Your task to perform on an android device: Open Chrome and go to the settings page Image 0: 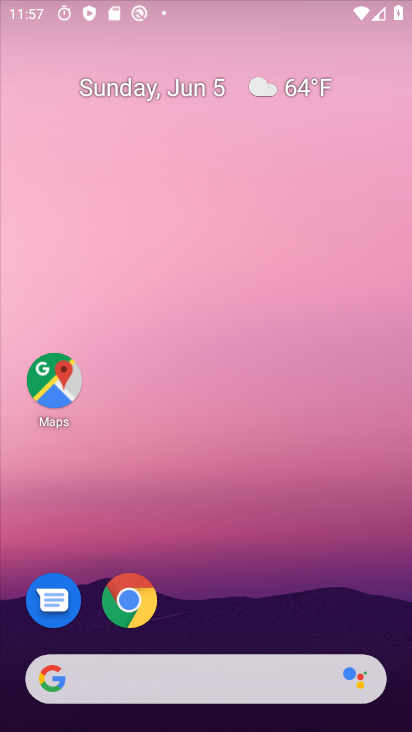
Step 0: drag from (292, 681) to (226, 227)
Your task to perform on an android device: Open Chrome and go to the settings page Image 1: 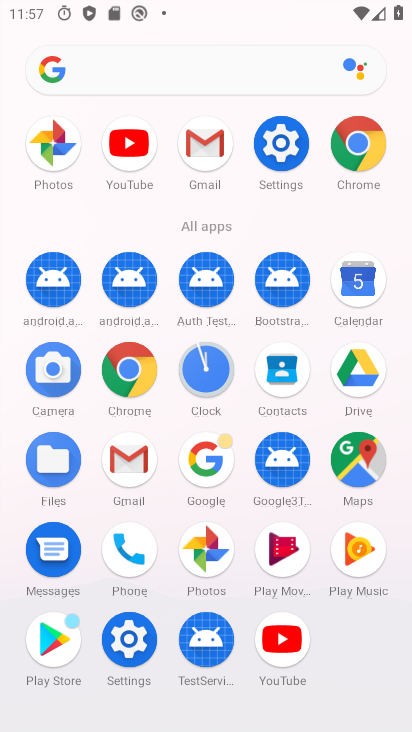
Step 1: click (276, 146)
Your task to perform on an android device: Open Chrome and go to the settings page Image 2: 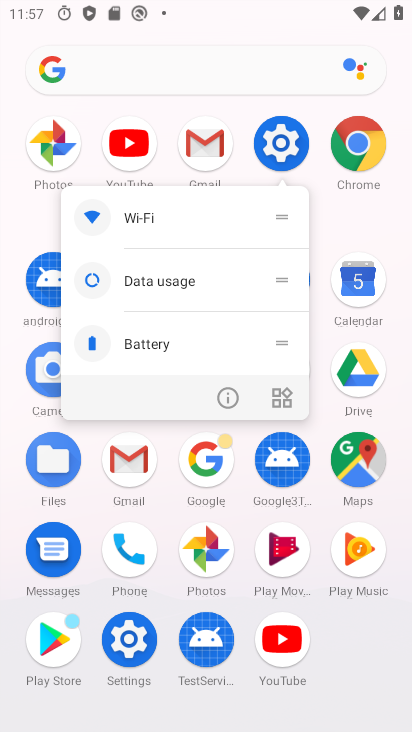
Step 2: click (276, 142)
Your task to perform on an android device: Open Chrome and go to the settings page Image 3: 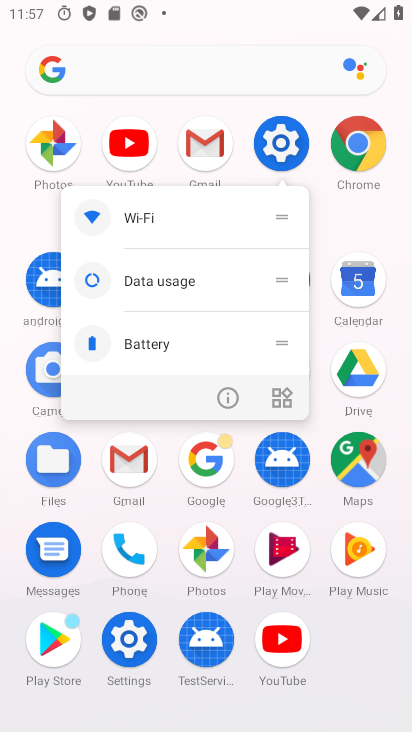
Step 3: click (275, 141)
Your task to perform on an android device: Open Chrome and go to the settings page Image 4: 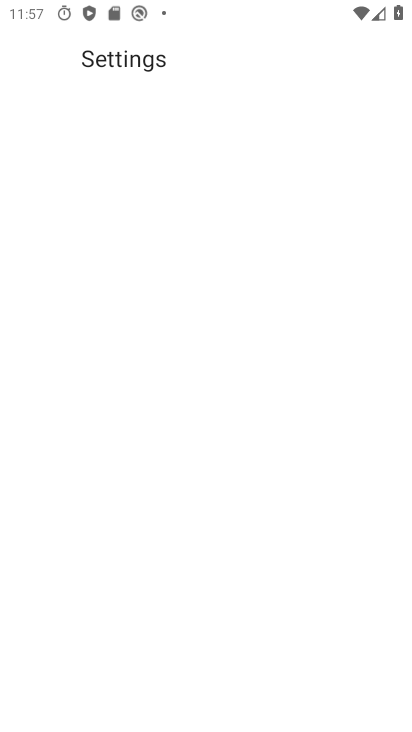
Step 4: click (275, 140)
Your task to perform on an android device: Open Chrome and go to the settings page Image 5: 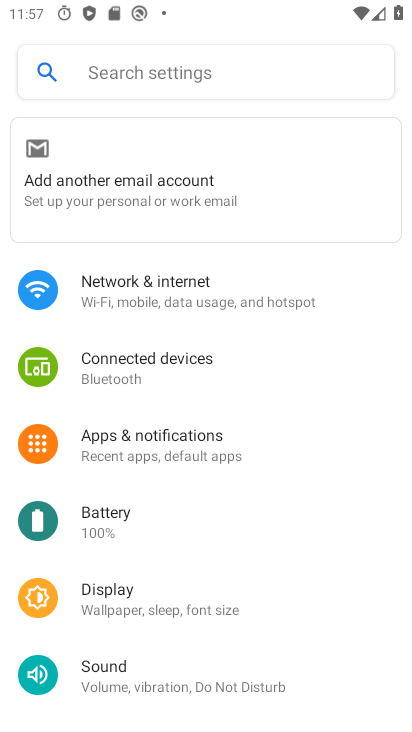
Step 5: press back button
Your task to perform on an android device: Open Chrome and go to the settings page Image 6: 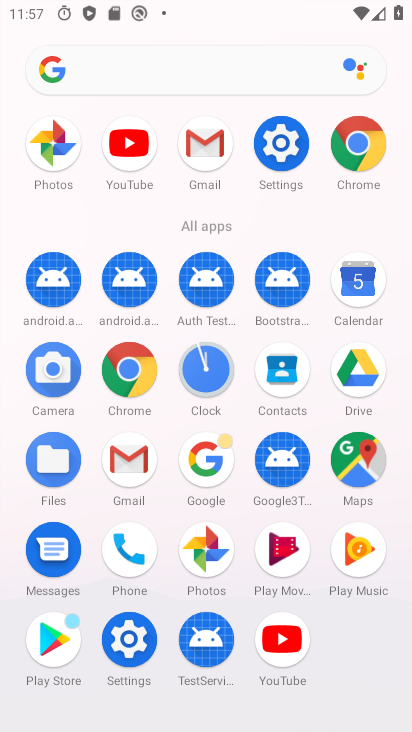
Step 6: click (358, 149)
Your task to perform on an android device: Open Chrome and go to the settings page Image 7: 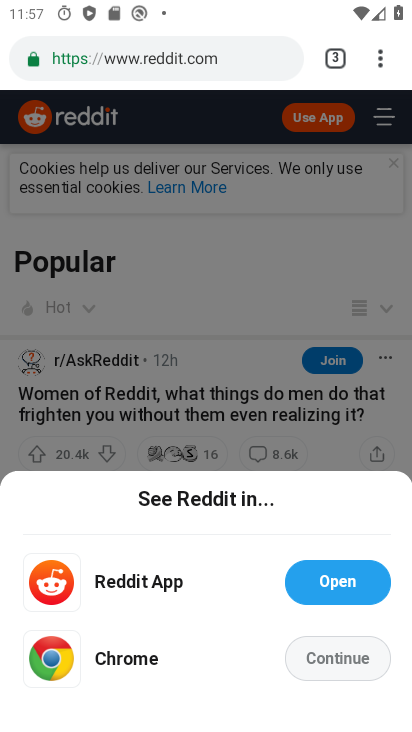
Step 7: click (381, 57)
Your task to perform on an android device: Open Chrome and go to the settings page Image 8: 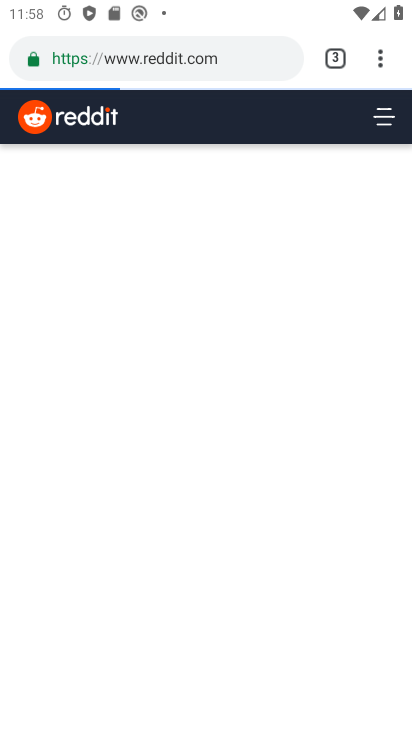
Step 8: click (387, 69)
Your task to perform on an android device: Open Chrome and go to the settings page Image 9: 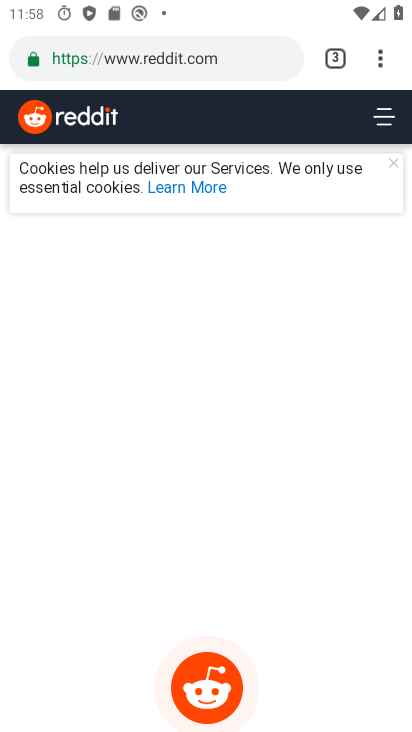
Step 9: click (374, 63)
Your task to perform on an android device: Open Chrome and go to the settings page Image 10: 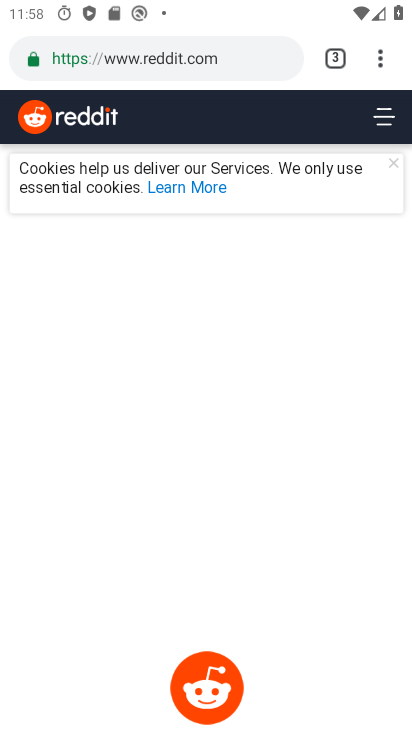
Step 10: click (375, 54)
Your task to perform on an android device: Open Chrome and go to the settings page Image 11: 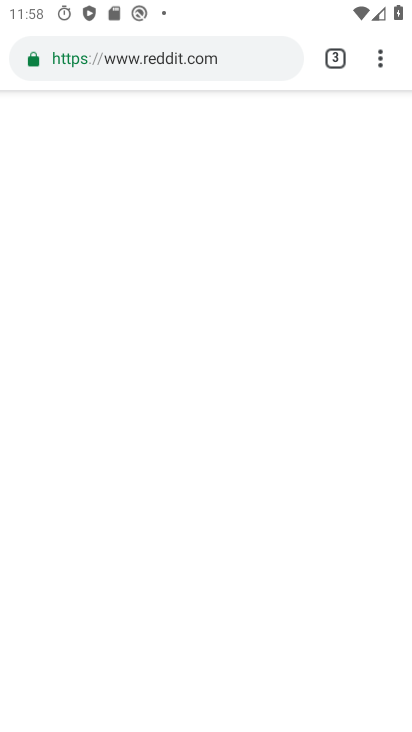
Step 11: drag from (369, 63) to (159, 617)
Your task to perform on an android device: Open Chrome and go to the settings page Image 12: 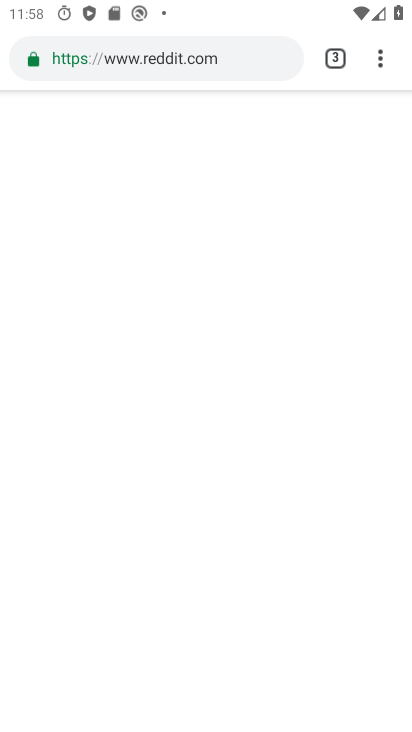
Step 12: click (153, 621)
Your task to perform on an android device: Open Chrome and go to the settings page Image 13: 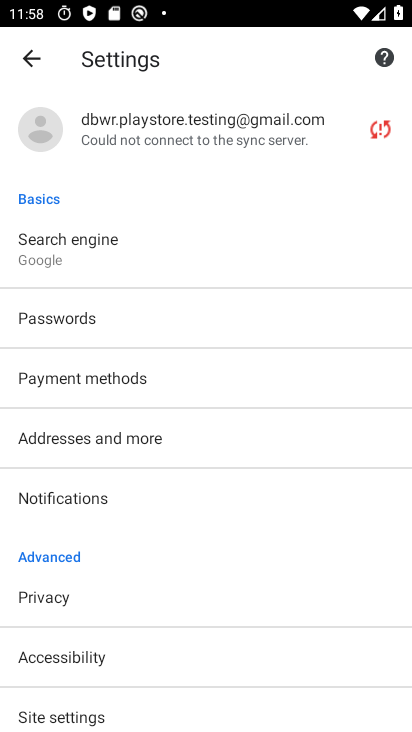
Step 13: task complete